Your task to perform on an android device: Open Maps and search for coffee Image 0: 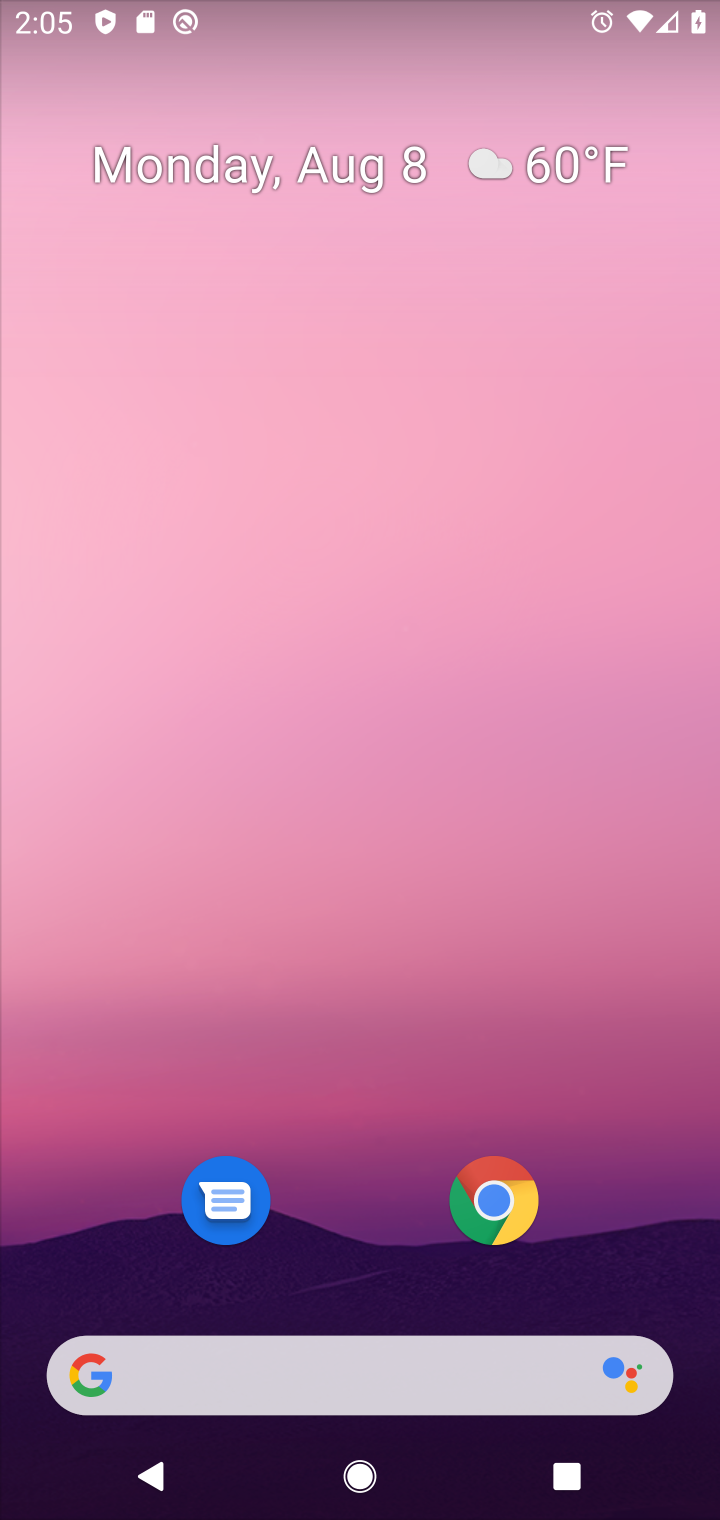
Step 0: press home button
Your task to perform on an android device: Open Maps and search for coffee Image 1: 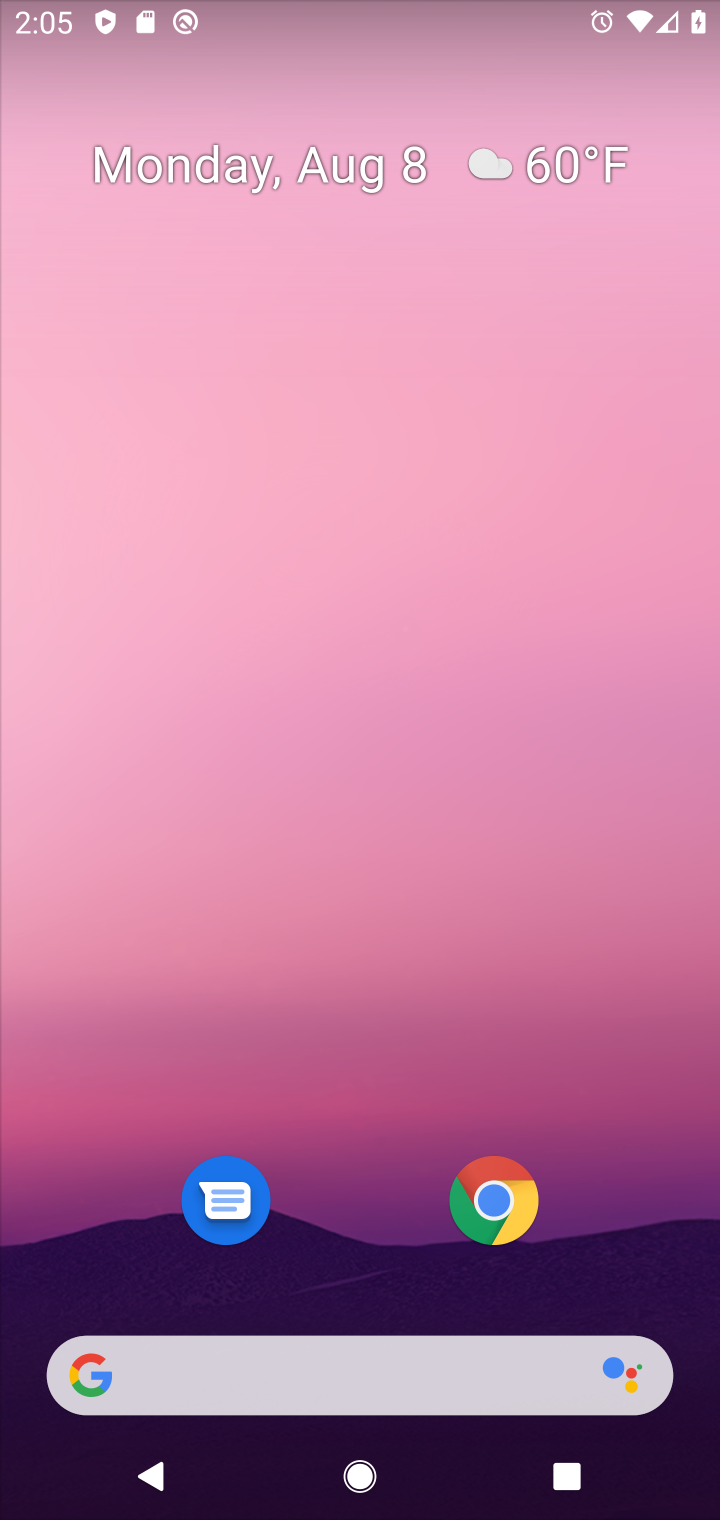
Step 1: drag from (358, 1274) to (474, 188)
Your task to perform on an android device: Open Maps and search for coffee Image 2: 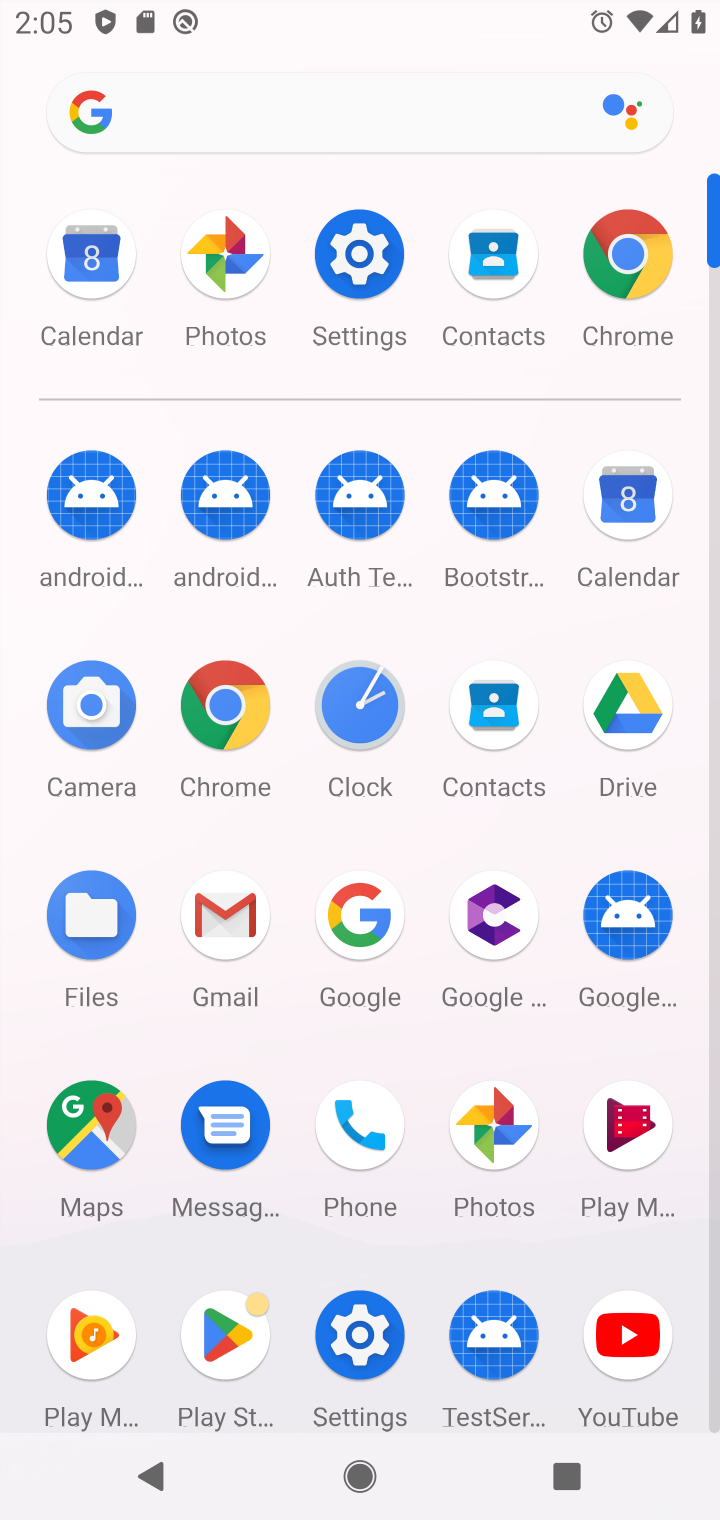
Step 2: click (88, 1115)
Your task to perform on an android device: Open Maps and search for coffee Image 3: 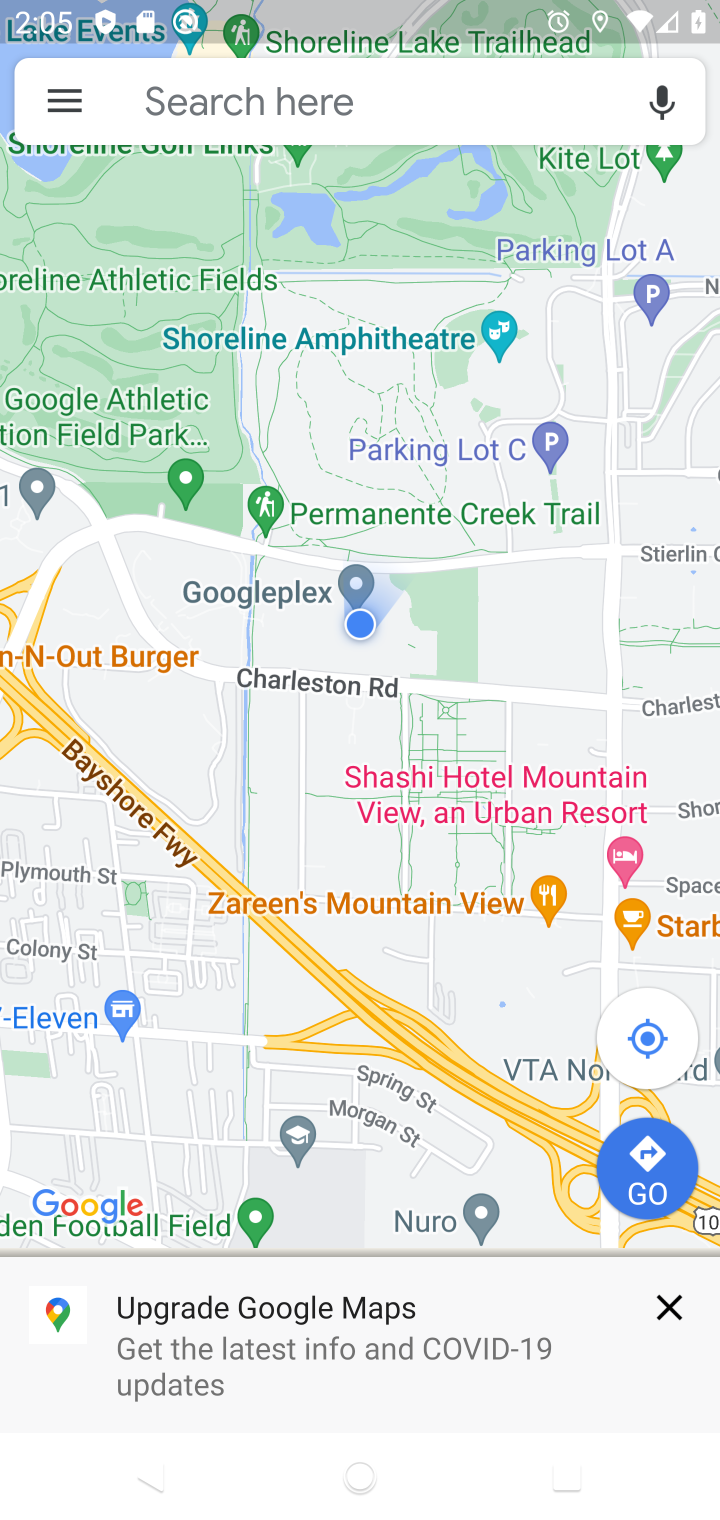
Step 3: click (291, 113)
Your task to perform on an android device: Open Maps and search for coffee Image 4: 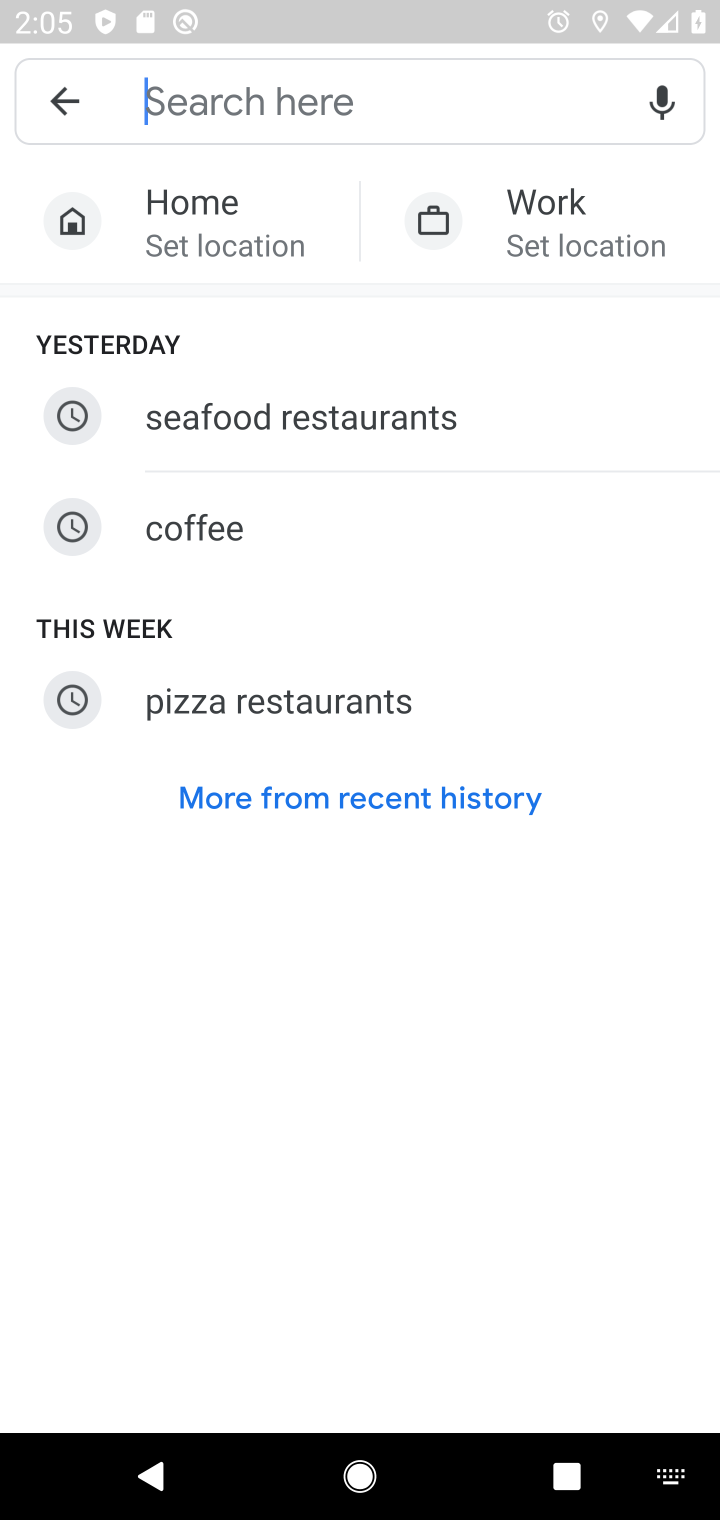
Step 4: click (252, 530)
Your task to perform on an android device: Open Maps and search for coffee Image 5: 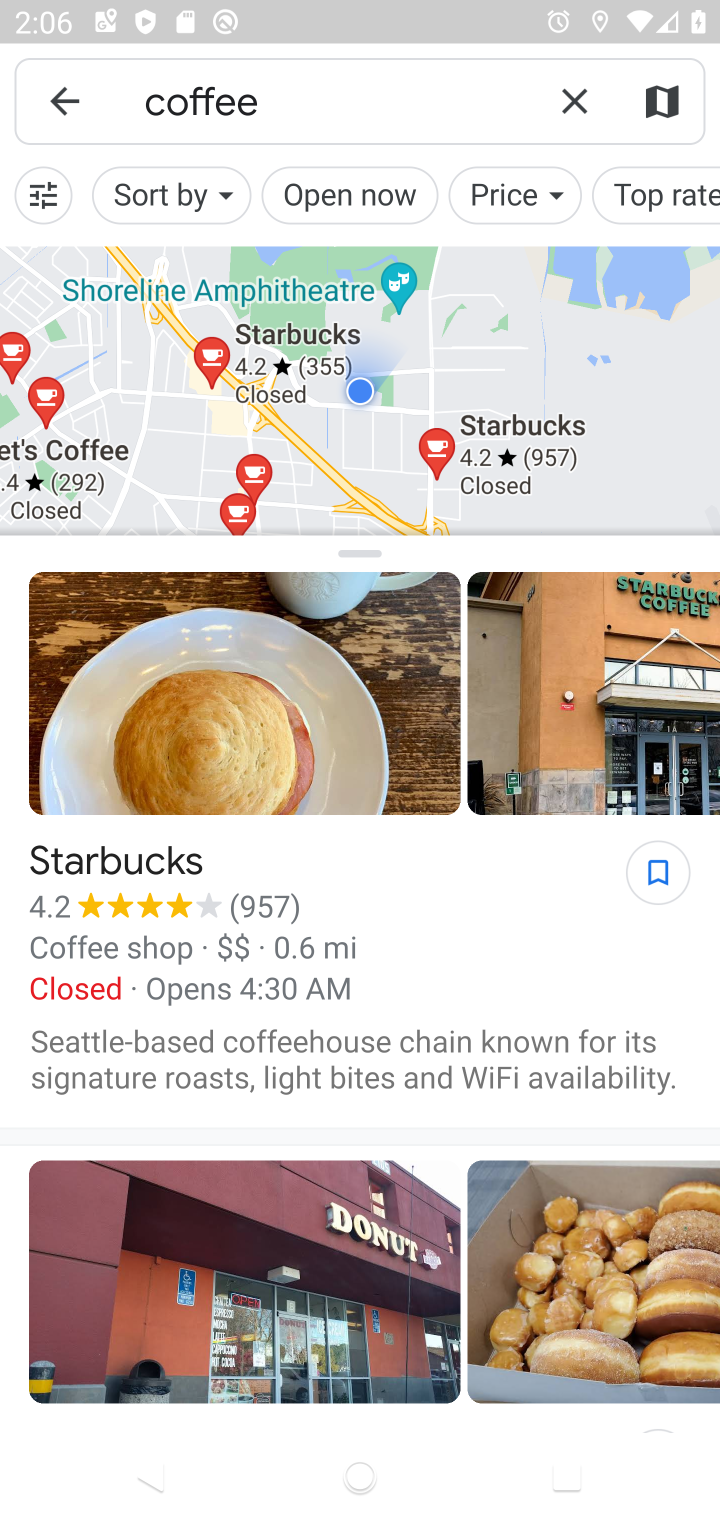
Step 5: task complete